Your task to perform on an android device: open device folders in google photos Image 0: 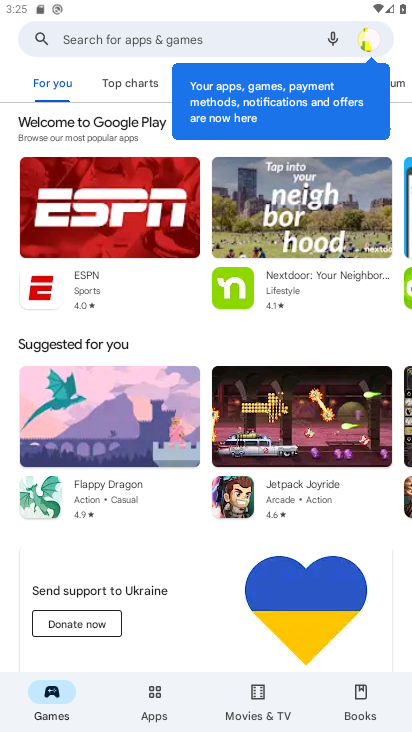
Step 0: press home button
Your task to perform on an android device: open device folders in google photos Image 1: 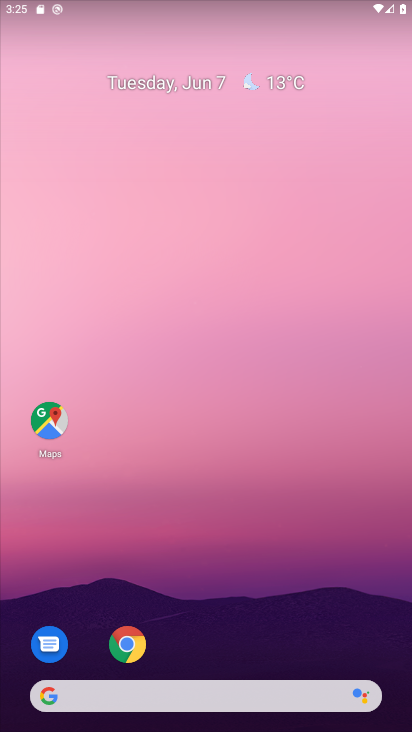
Step 1: drag from (310, 617) to (366, 147)
Your task to perform on an android device: open device folders in google photos Image 2: 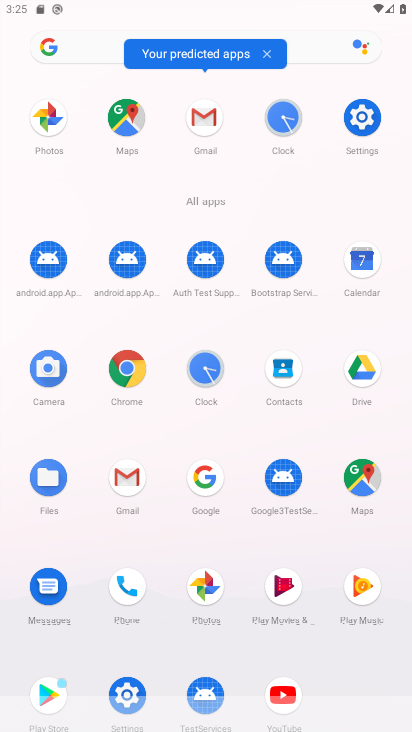
Step 2: click (211, 588)
Your task to perform on an android device: open device folders in google photos Image 3: 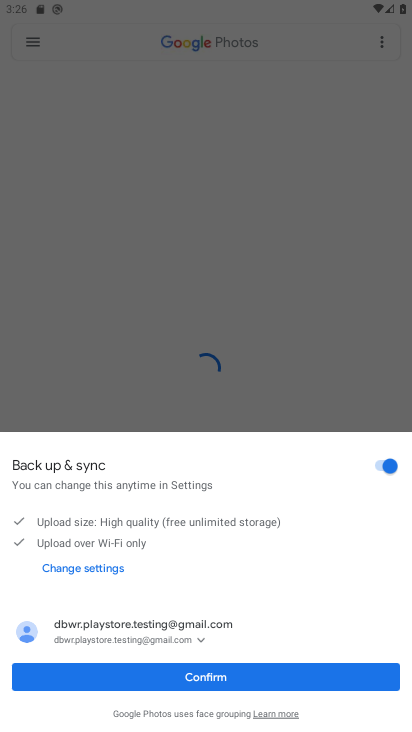
Step 3: click (302, 681)
Your task to perform on an android device: open device folders in google photos Image 4: 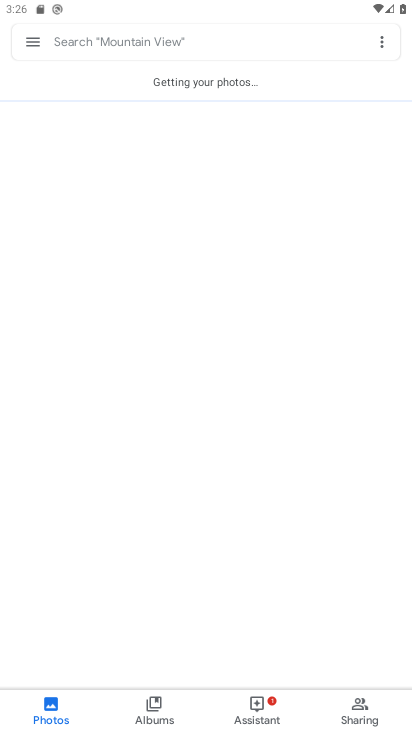
Step 4: click (34, 45)
Your task to perform on an android device: open device folders in google photos Image 5: 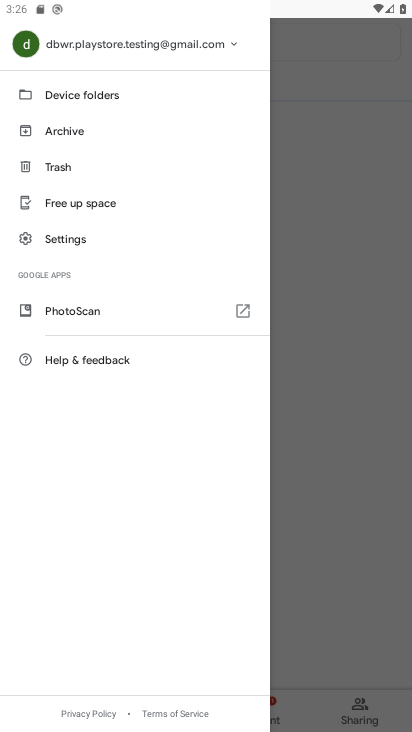
Step 5: click (101, 102)
Your task to perform on an android device: open device folders in google photos Image 6: 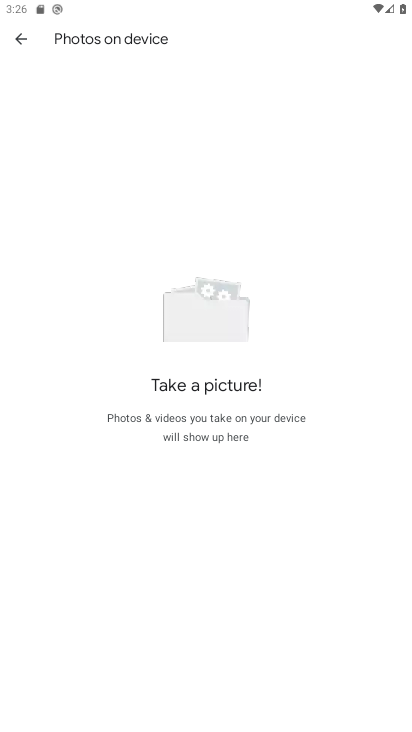
Step 6: task complete